Your task to perform on an android device: turn on javascript in the chrome app Image 0: 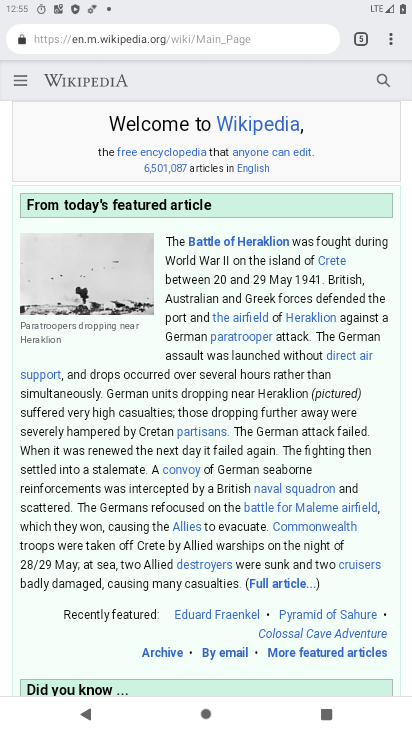
Step 0: press home button
Your task to perform on an android device: turn on javascript in the chrome app Image 1: 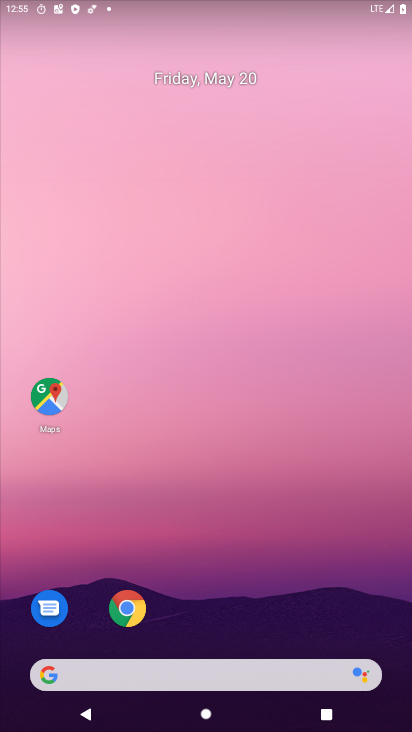
Step 1: drag from (369, 605) to (296, 132)
Your task to perform on an android device: turn on javascript in the chrome app Image 2: 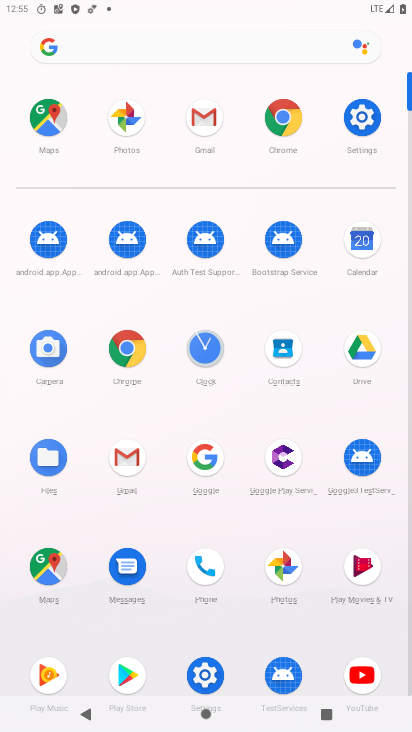
Step 2: click (126, 362)
Your task to perform on an android device: turn on javascript in the chrome app Image 3: 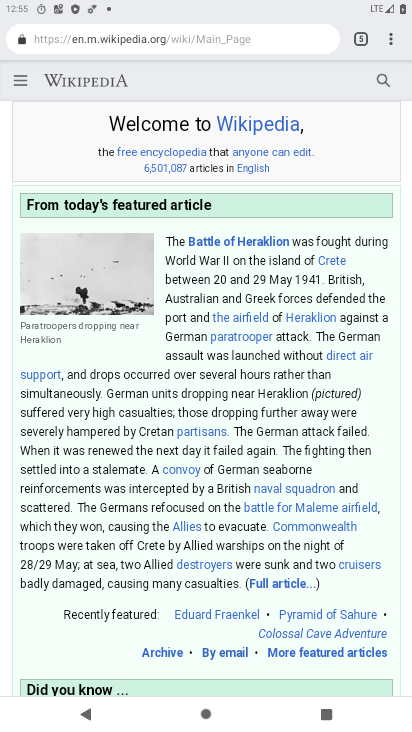
Step 3: drag from (394, 46) to (284, 469)
Your task to perform on an android device: turn on javascript in the chrome app Image 4: 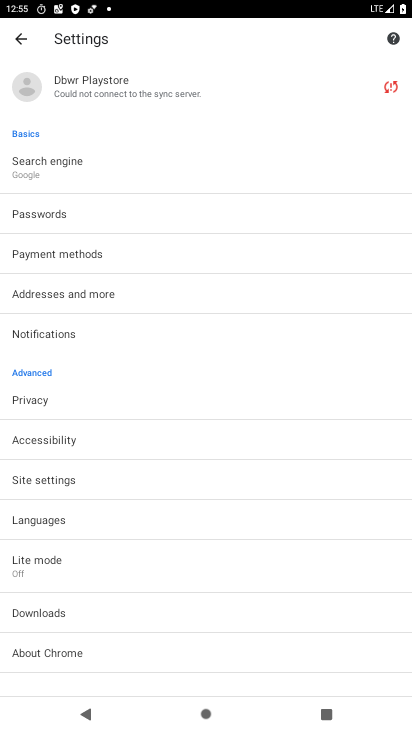
Step 4: click (102, 477)
Your task to perform on an android device: turn on javascript in the chrome app Image 5: 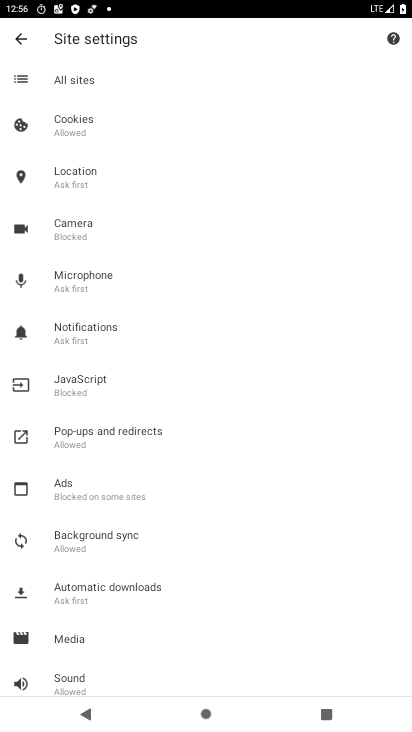
Step 5: click (109, 382)
Your task to perform on an android device: turn on javascript in the chrome app Image 6: 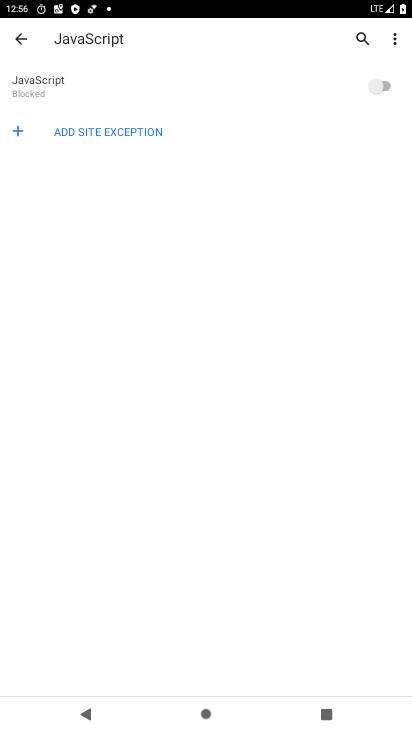
Step 6: click (391, 82)
Your task to perform on an android device: turn on javascript in the chrome app Image 7: 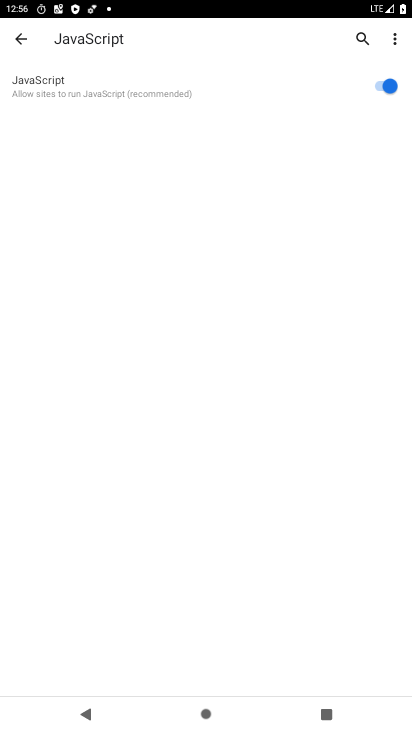
Step 7: task complete